Your task to perform on an android device: toggle pop-ups in chrome Image 0: 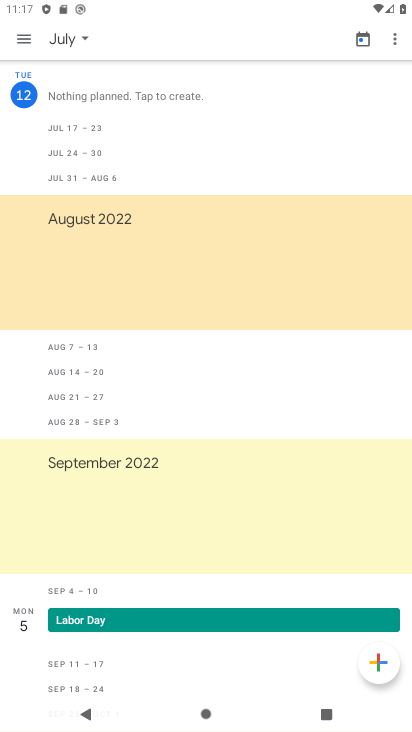
Step 0: press home button
Your task to perform on an android device: toggle pop-ups in chrome Image 1: 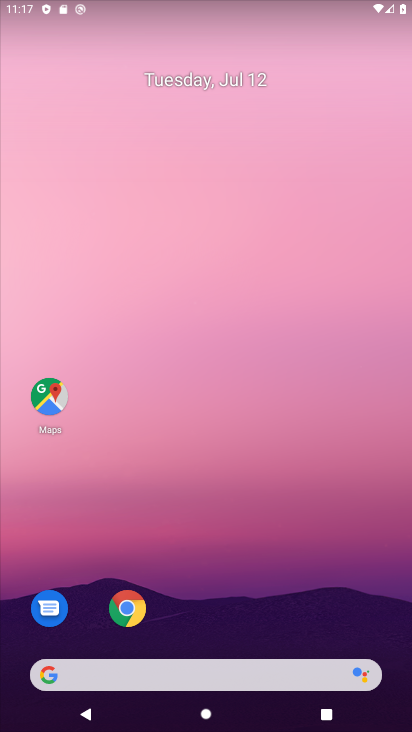
Step 1: click (126, 605)
Your task to perform on an android device: toggle pop-ups in chrome Image 2: 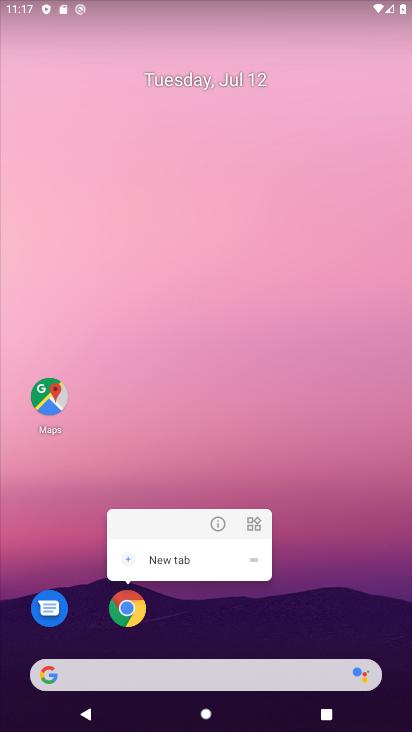
Step 2: click (123, 606)
Your task to perform on an android device: toggle pop-ups in chrome Image 3: 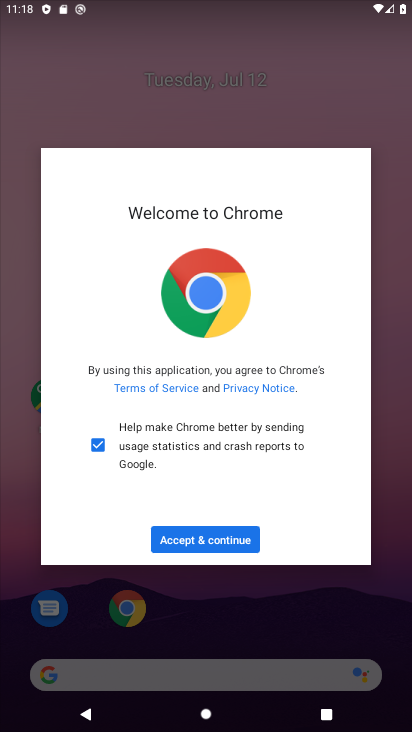
Step 3: click (217, 532)
Your task to perform on an android device: toggle pop-ups in chrome Image 4: 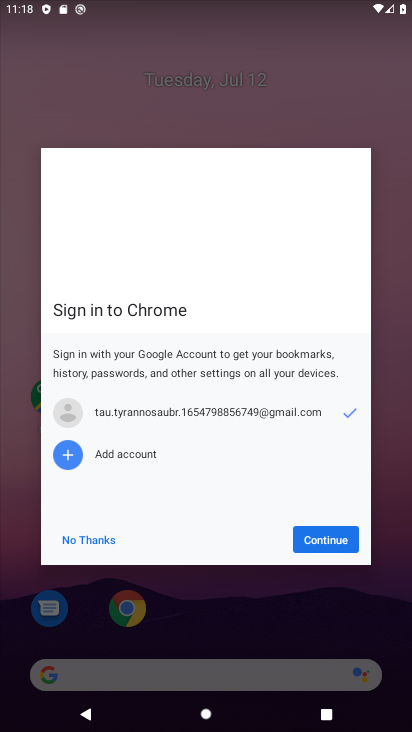
Step 4: drag from (217, 532) to (283, 467)
Your task to perform on an android device: toggle pop-ups in chrome Image 5: 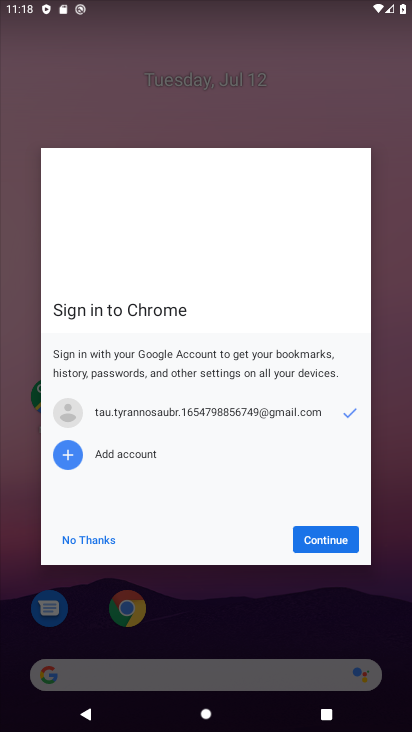
Step 5: click (324, 541)
Your task to perform on an android device: toggle pop-ups in chrome Image 6: 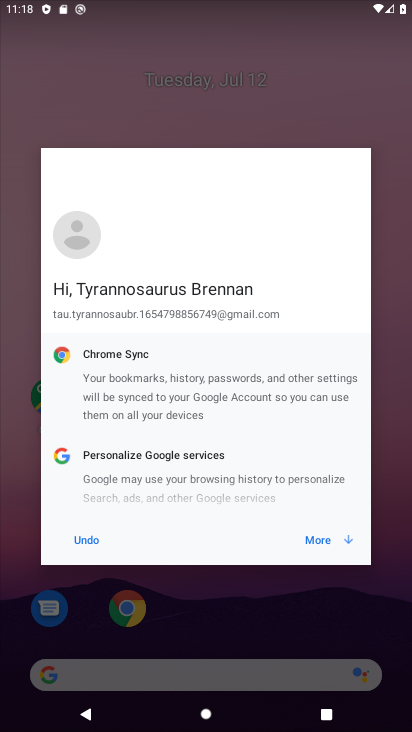
Step 6: click (324, 541)
Your task to perform on an android device: toggle pop-ups in chrome Image 7: 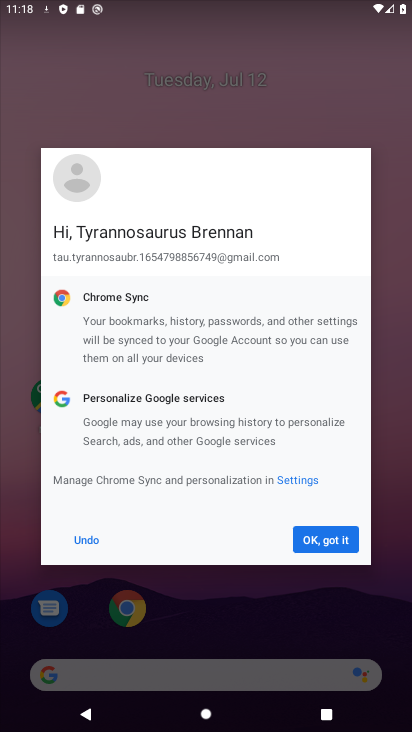
Step 7: click (324, 541)
Your task to perform on an android device: toggle pop-ups in chrome Image 8: 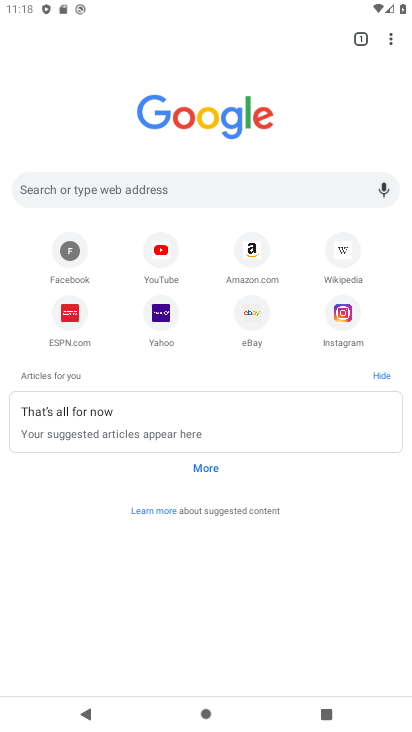
Step 8: click (385, 39)
Your task to perform on an android device: toggle pop-ups in chrome Image 9: 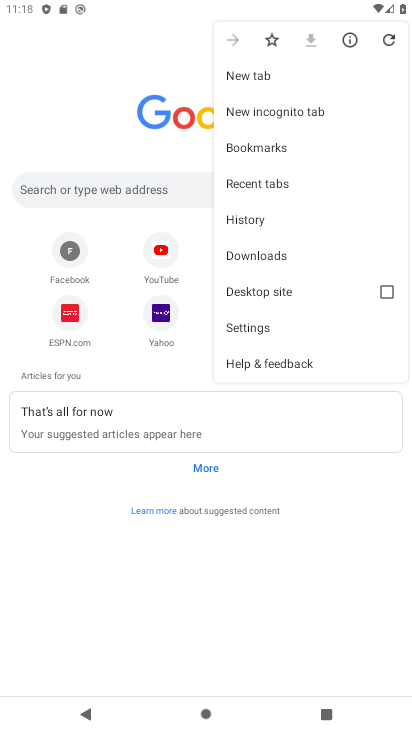
Step 9: click (259, 328)
Your task to perform on an android device: toggle pop-ups in chrome Image 10: 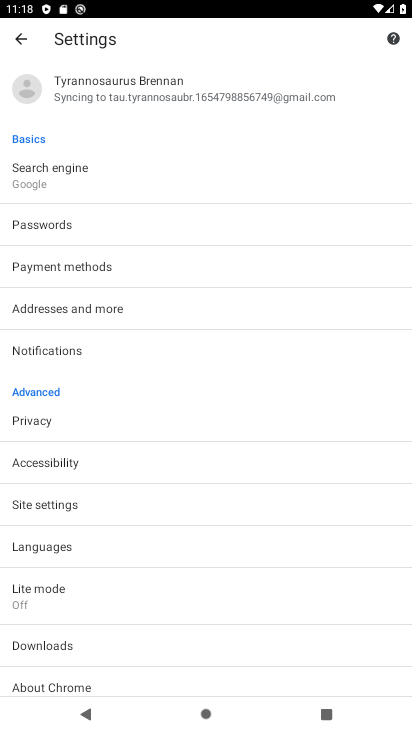
Step 10: click (38, 501)
Your task to perform on an android device: toggle pop-ups in chrome Image 11: 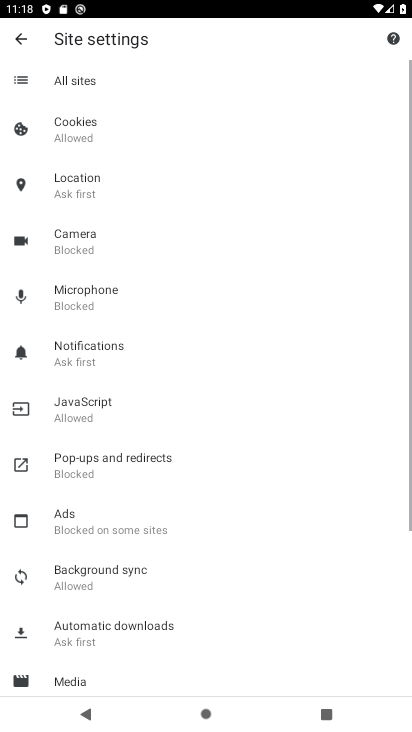
Step 11: click (115, 460)
Your task to perform on an android device: toggle pop-ups in chrome Image 12: 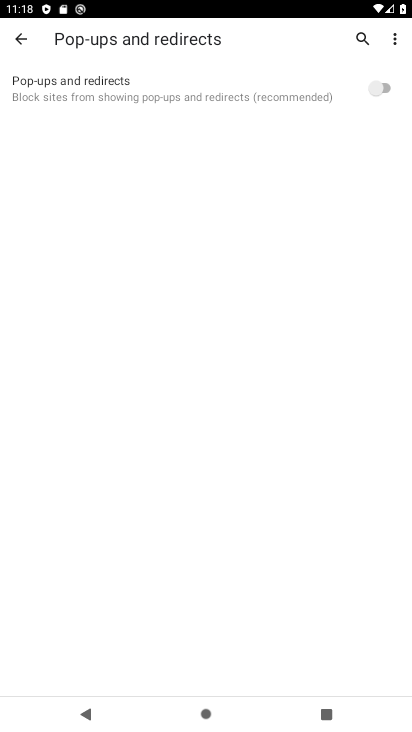
Step 12: click (382, 80)
Your task to perform on an android device: toggle pop-ups in chrome Image 13: 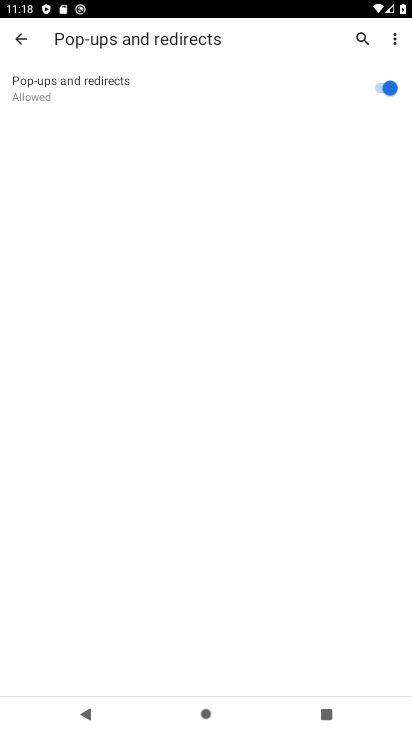
Step 13: task complete